Your task to perform on an android device: open chrome privacy settings Image 0: 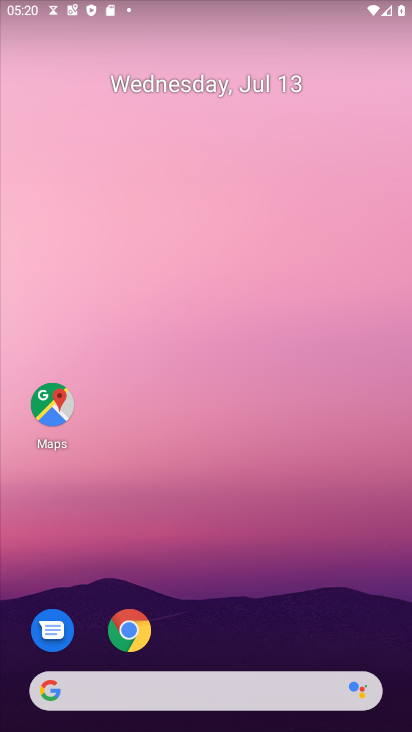
Step 0: drag from (324, 679) to (341, 0)
Your task to perform on an android device: open chrome privacy settings Image 1: 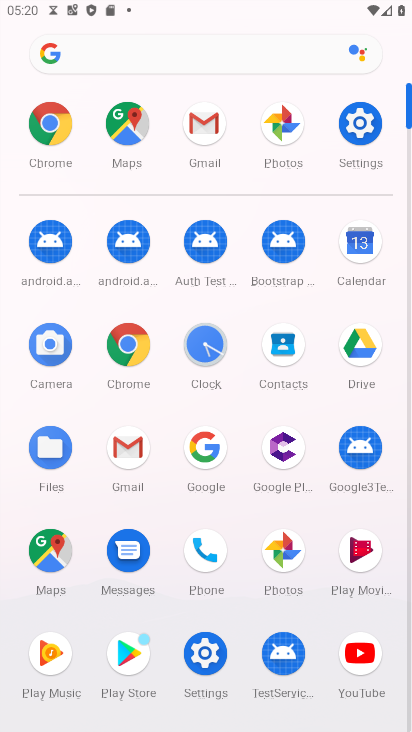
Step 1: click (343, 116)
Your task to perform on an android device: open chrome privacy settings Image 2: 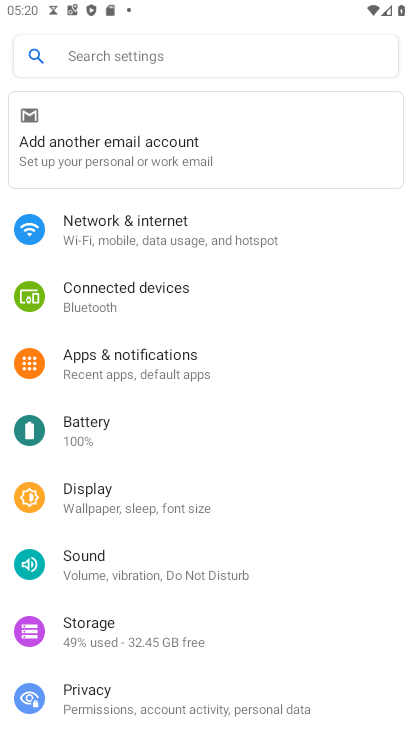
Step 2: press home button
Your task to perform on an android device: open chrome privacy settings Image 3: 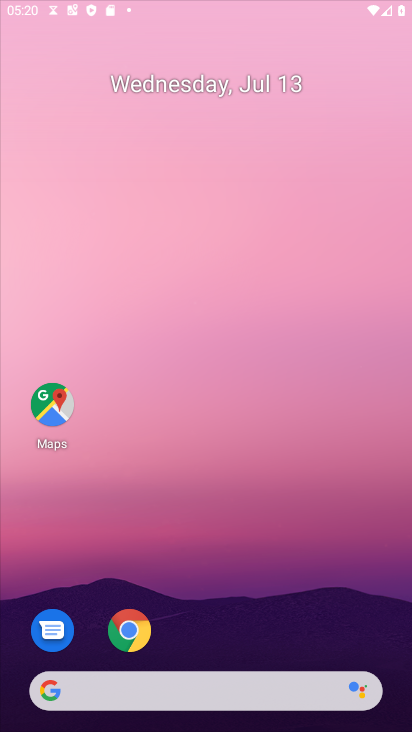
Step 3: drag from (144, 667) to (325, 94)
Your task to perform on an android device: open chrome privacy settings Image 4: 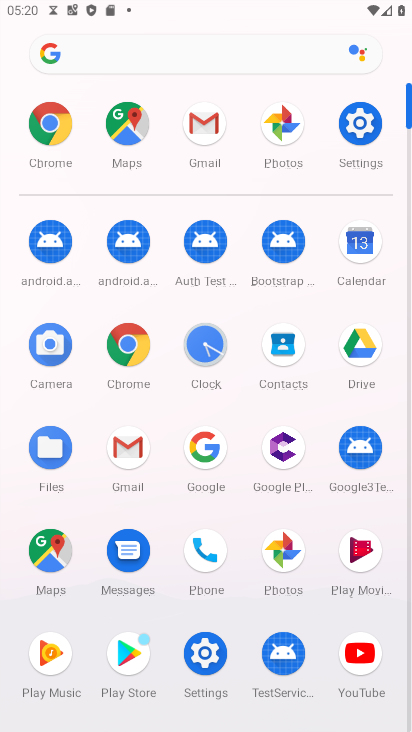
Step 4: click (132, 338)
Your task to perform on an android device: open chrome privacy settings Image 5: 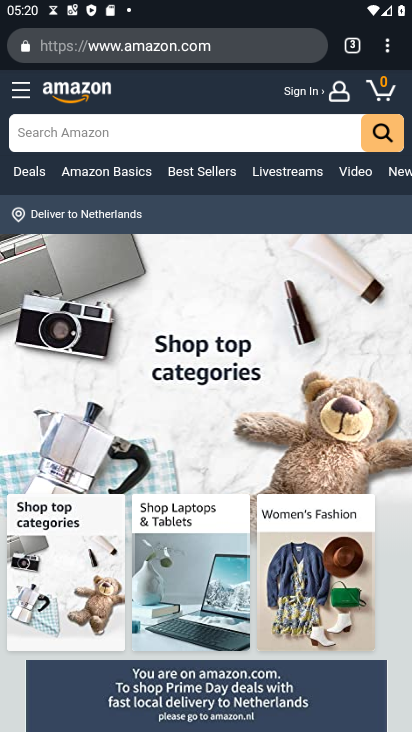
Step 5: drag from (391, 42) to (220, 553)
Your task to perform on an android device: open chrome privacy settings Image 6: 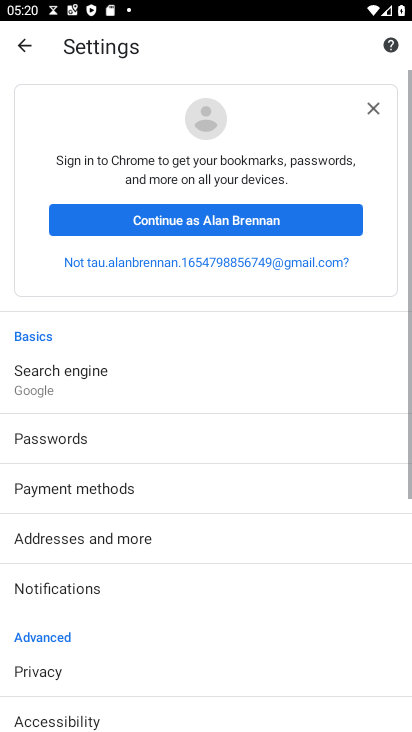
Step 6: drag from (152, 634) to (242, 288)
Your task to perform on an android device: open chrome privacy settings Image 7: 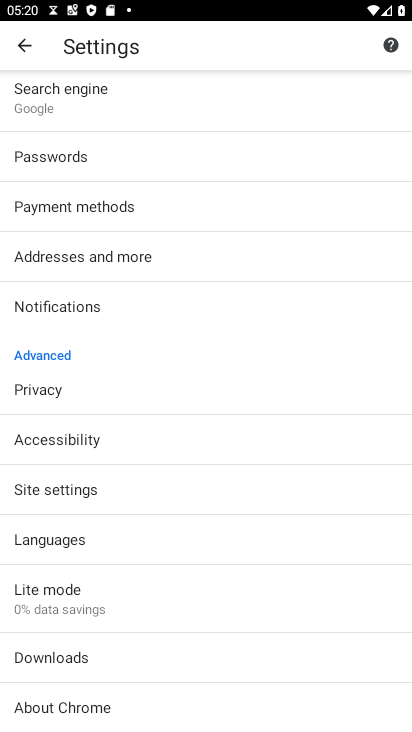
Step 7: click (120, 395)
Your task to perform on an android device: open chrome privacy settings Image 8: 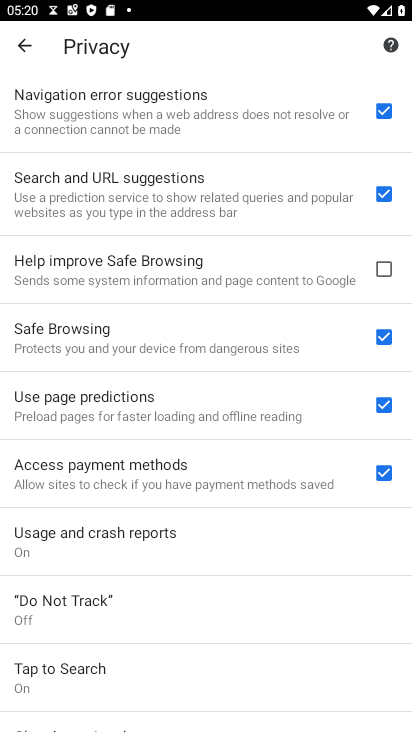
Step 8: task complete